Your task to perform on an android device: toggle translation in the chrome app Image 0: 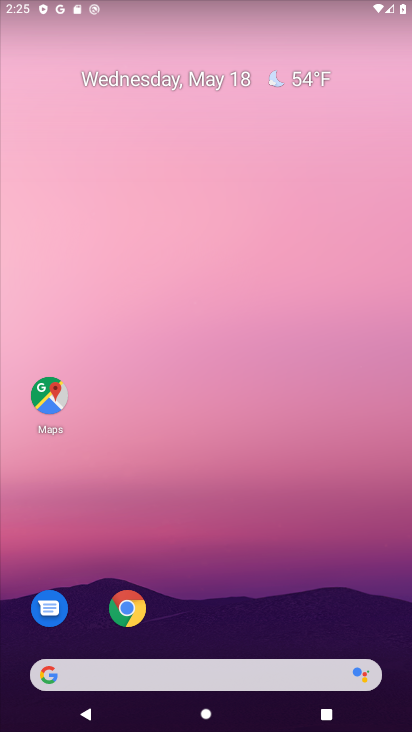
Step 0: click (123, 609)
Your task to perform on an android device: toggle translation in the chrome app Image 1: 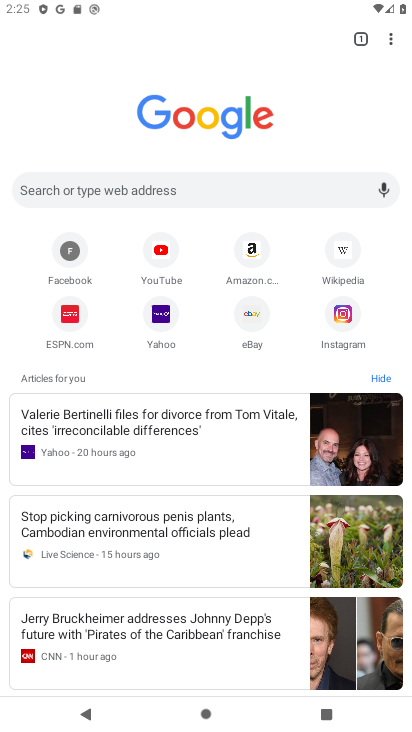
Step 1: click (395, 40)
Your task to perform on an android device: toggle translation in the chrome app Image 2: 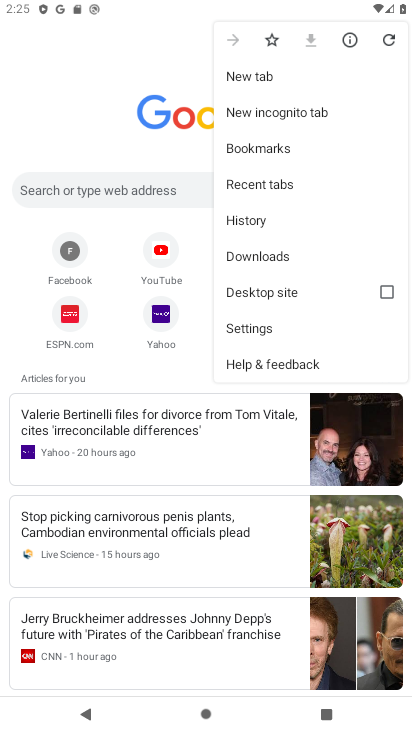
Step 2: click (248, 325)
Your task to perform on an android device: toggle translation in the chrome app Image 3: 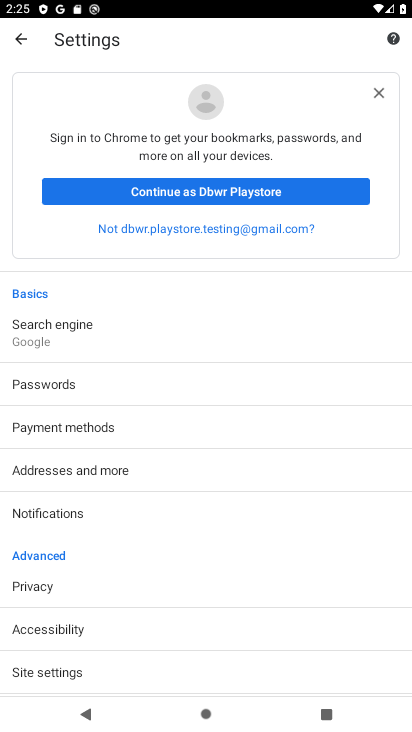
Step 3: drag from (144, 631) to (146, 402)
Your task to perform on an android device: toggle translation in the chrome app Image 4: 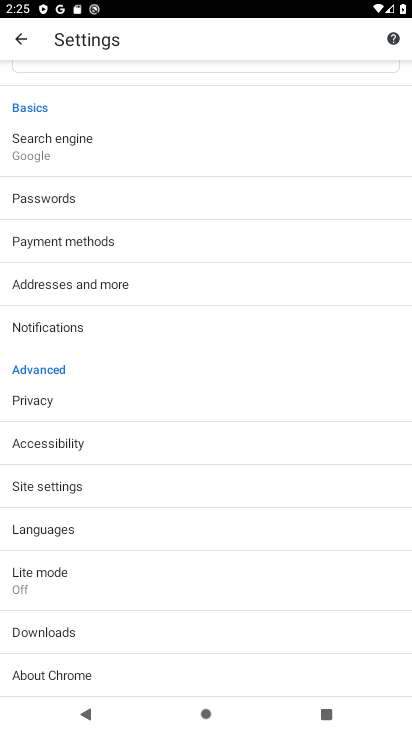
Step 4: click (22, 527)
Your task to perform on an android device: toggle translation in the chrome app Image 5: 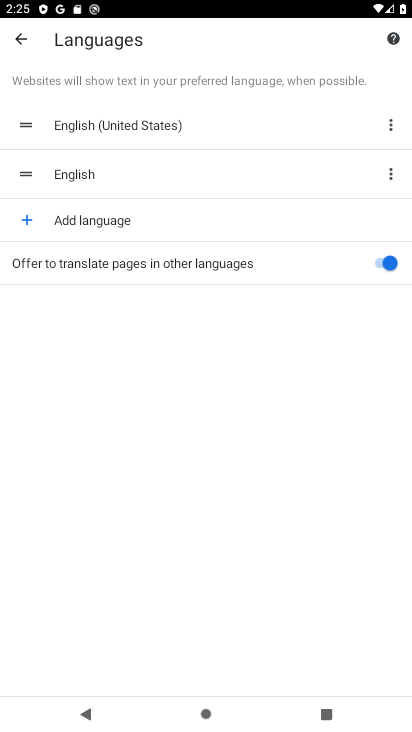
Step 5: click (389, 270)
Your task to perform on an android device: toggle translation in the chrome app Image 6: 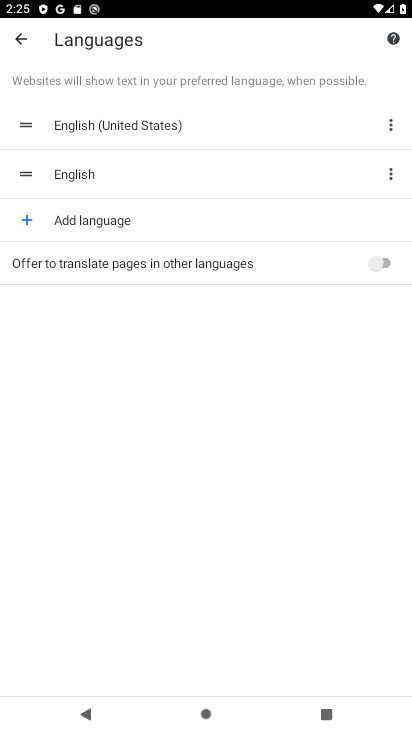
Step 6: task complete